Your task to perform on an android device: change the clock display to digital Image 0: 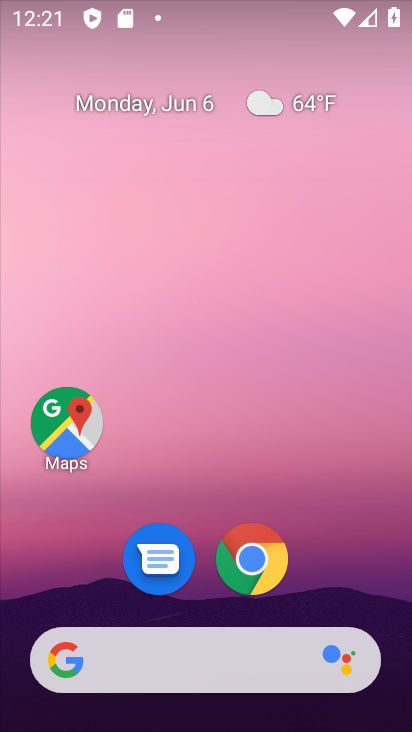
Step 0: drag from (236, 665) to (244, 195)
Your task to perform on an android device: change the clock display to digital Image 1: 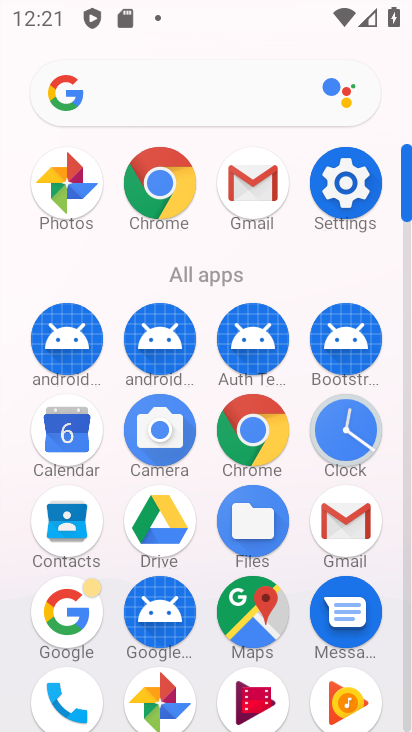
Step 1: click (324, 426)
Your task to perform on an android device: change the clock display to digital Image 2: 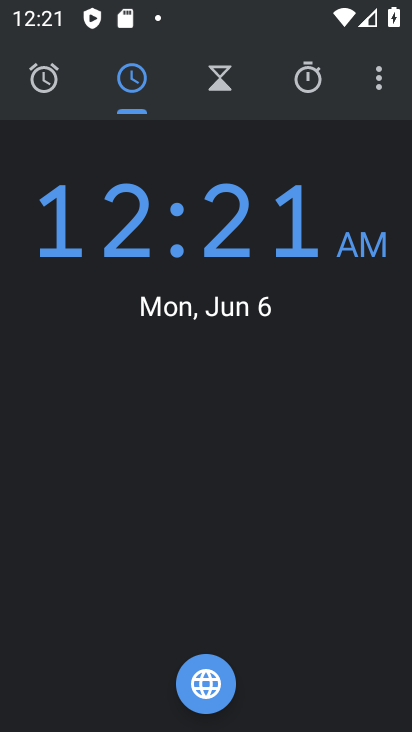
Step 2: click (374, 97)
Your task to perform on an android device: change the clock display to digital Image 3: 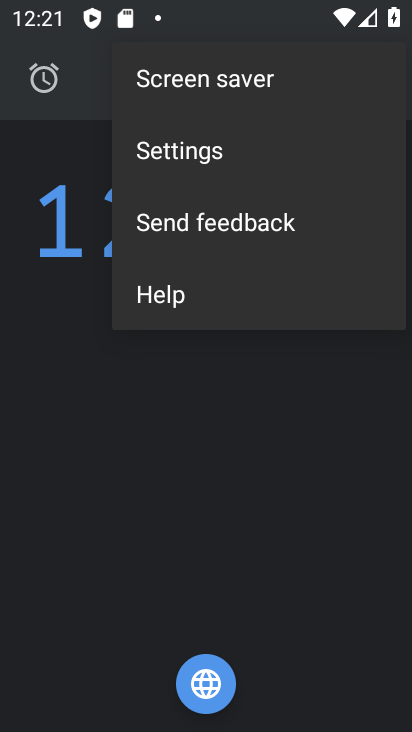
Step 3: click (217, 133)
Your task to perform on an android device: change the clock display to digital Image 4: 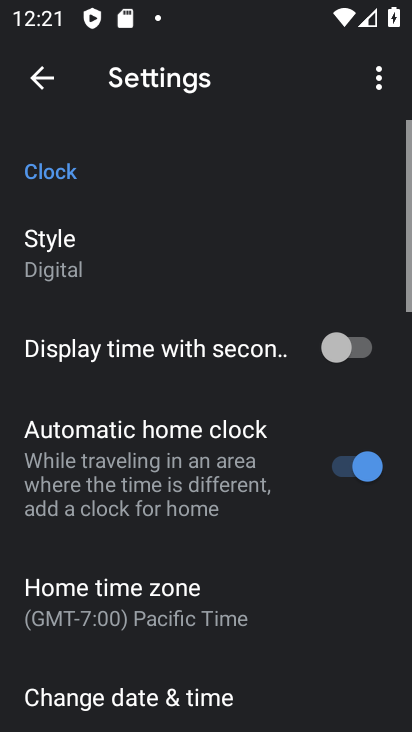
Step 4: click (106, 251)
Your task to perform on an android device: change the clock display to digital Image 5: 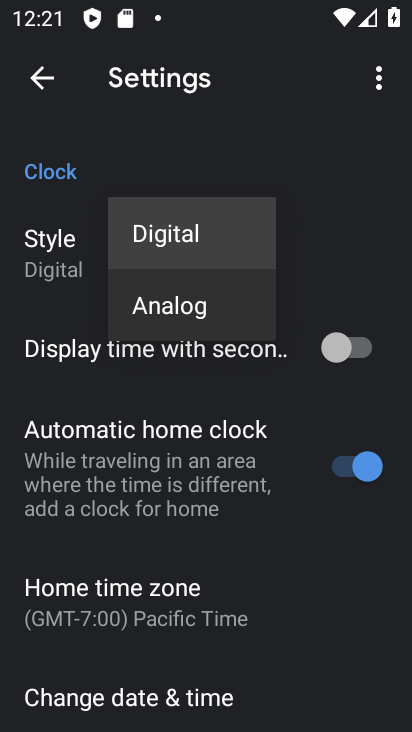
Step 5: click (142, 240)
Your task to perform on an android device: change the clock display to digital Image 6: 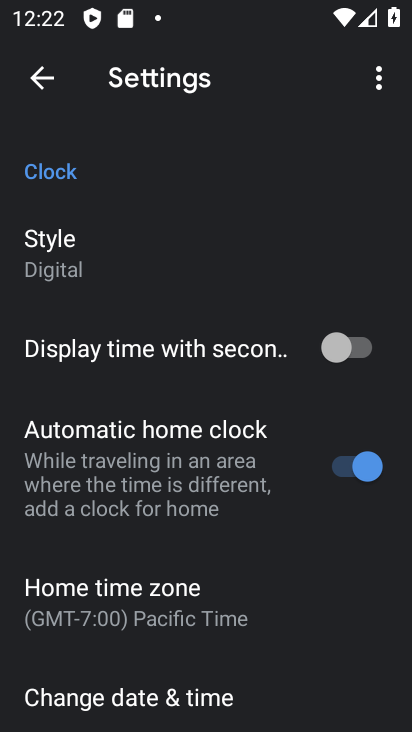
Step 6: task complete